Your task to perform on an android device: see sites visited before in the chrome app Image 0: 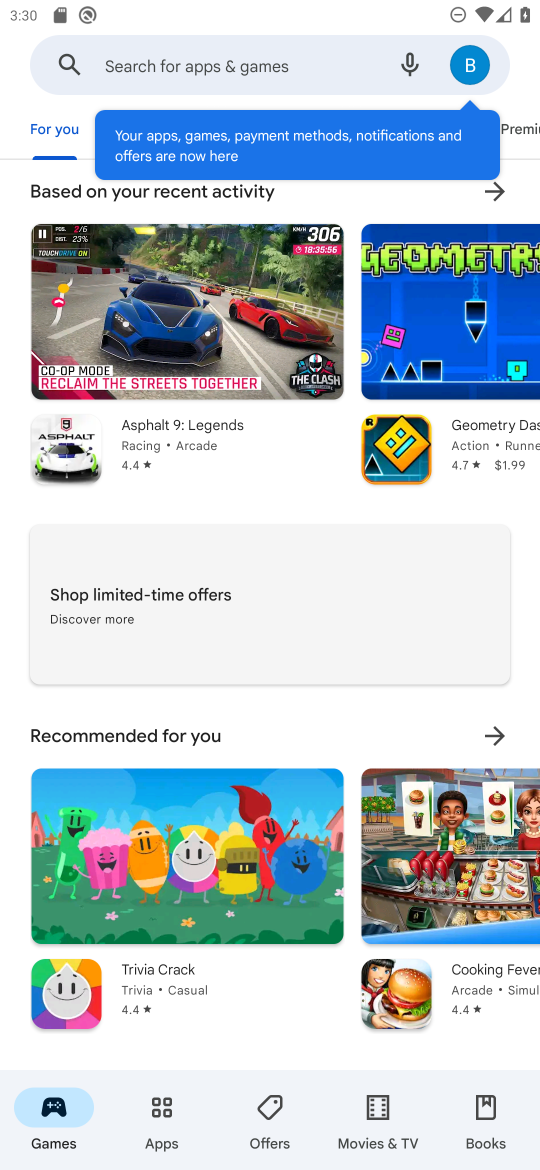
Step 0: press home button
Your task to perform on an android device: see sites visited before in the chrome app Image 1: 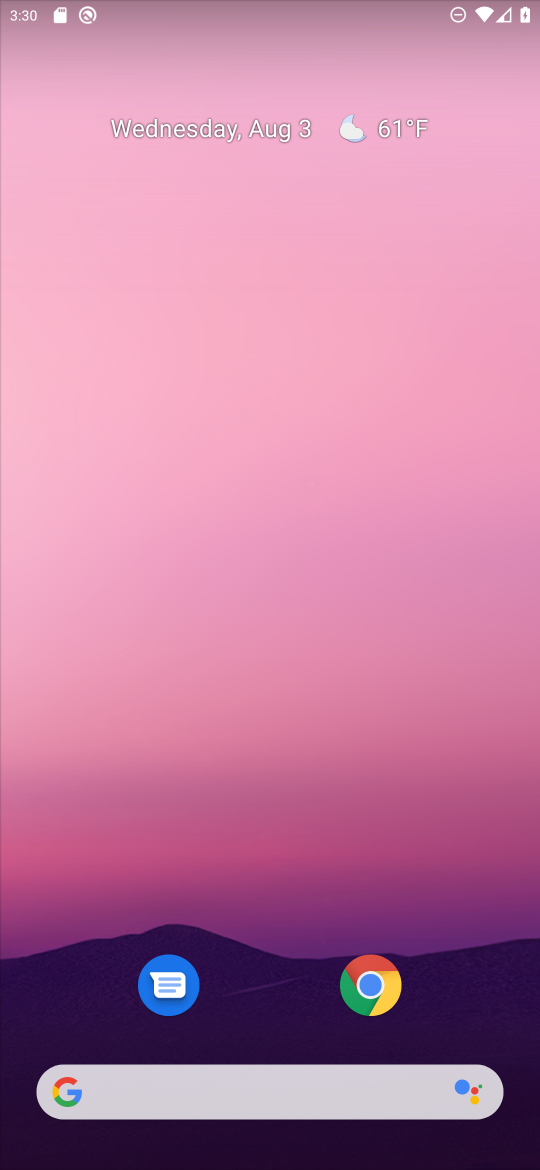
Step 1: click (383, 991)
Your task to perform on an android device: see sites visited before in the chrome app Image 2: 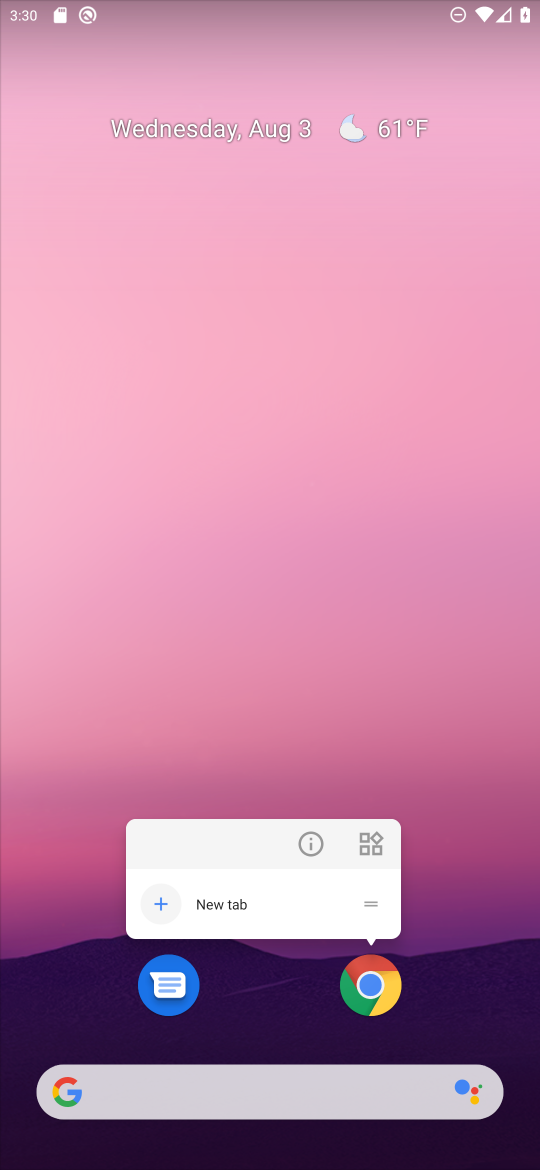
Step 2: click (374, 984)
Your task to perform on an android device: see sites visited before in the chrome app Image 3: 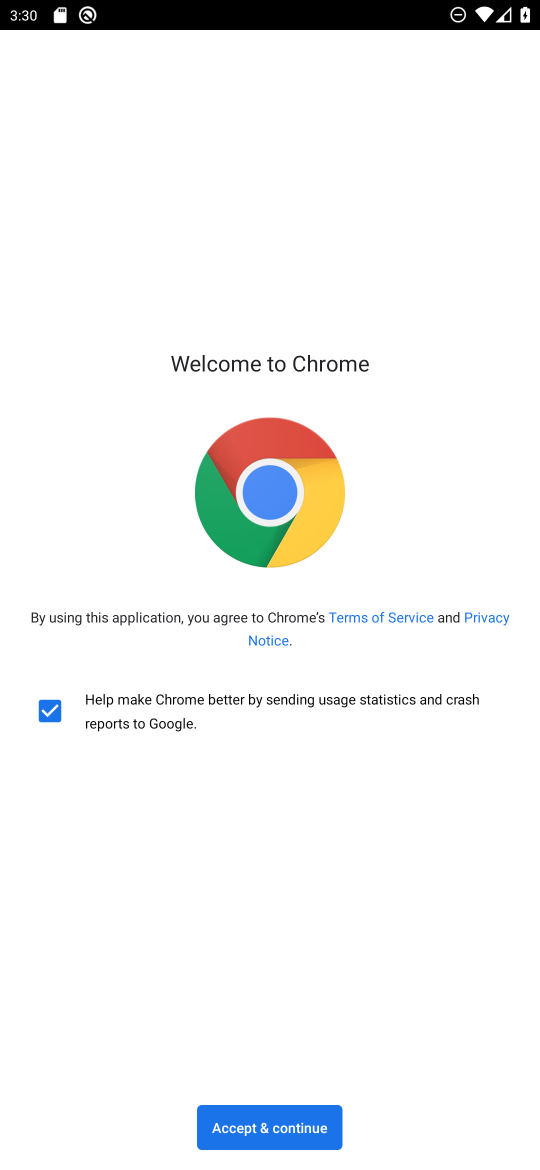
Step 3: click (256, 1115)
Your task to perform on an android device: see sites visited before in the chrome app Image 4: 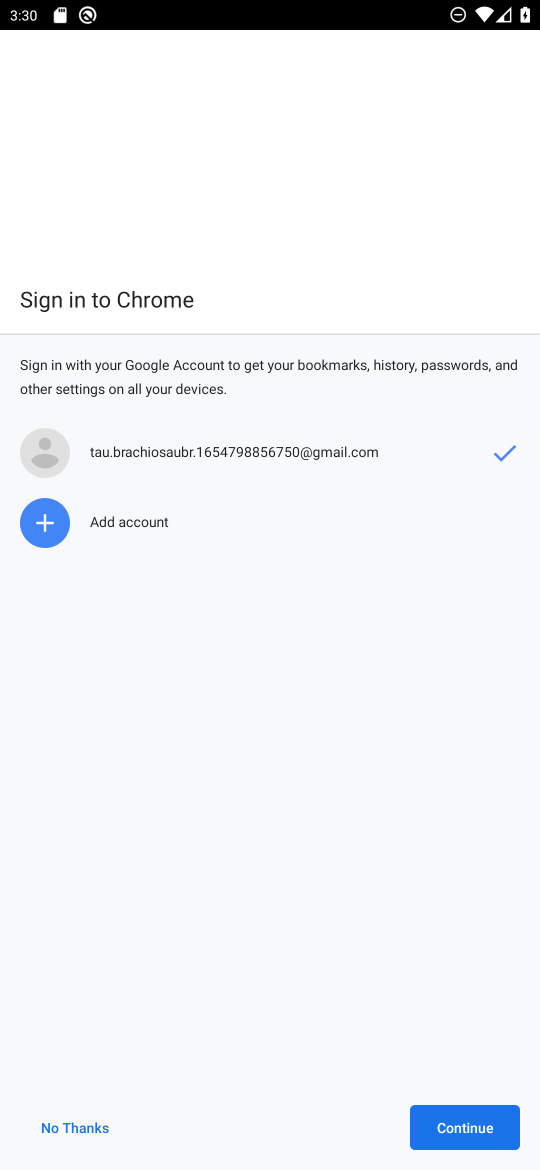
Step 4: click (451, 1134)
Your task to perform on an android device: see sites visited before in the chrome app Image 5: 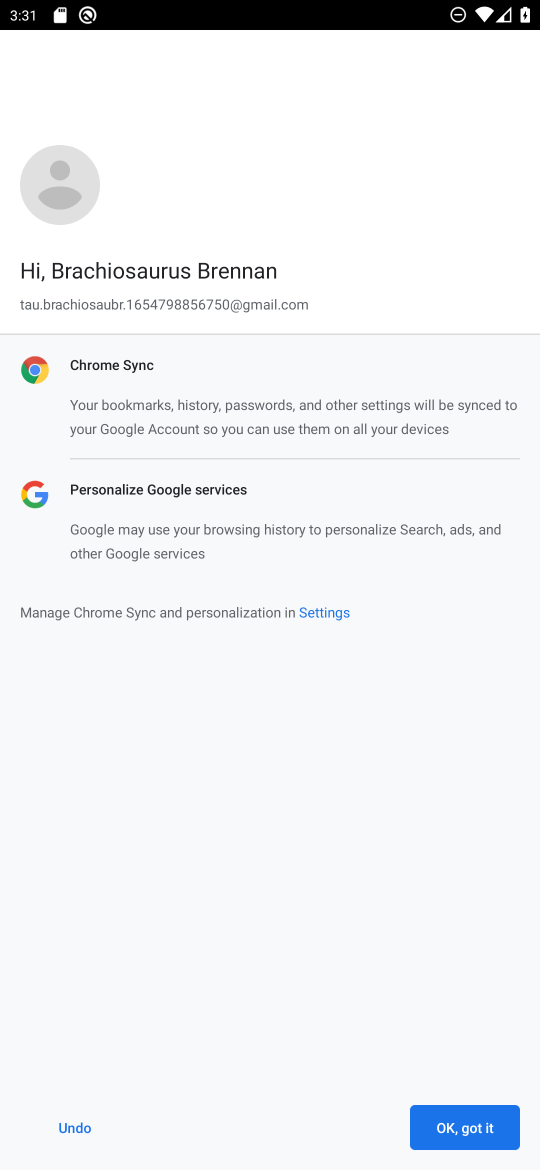
Step 5: click (466, 1134)
Your task to perform on an android device: see sites visited before in the chrome app Image 6: 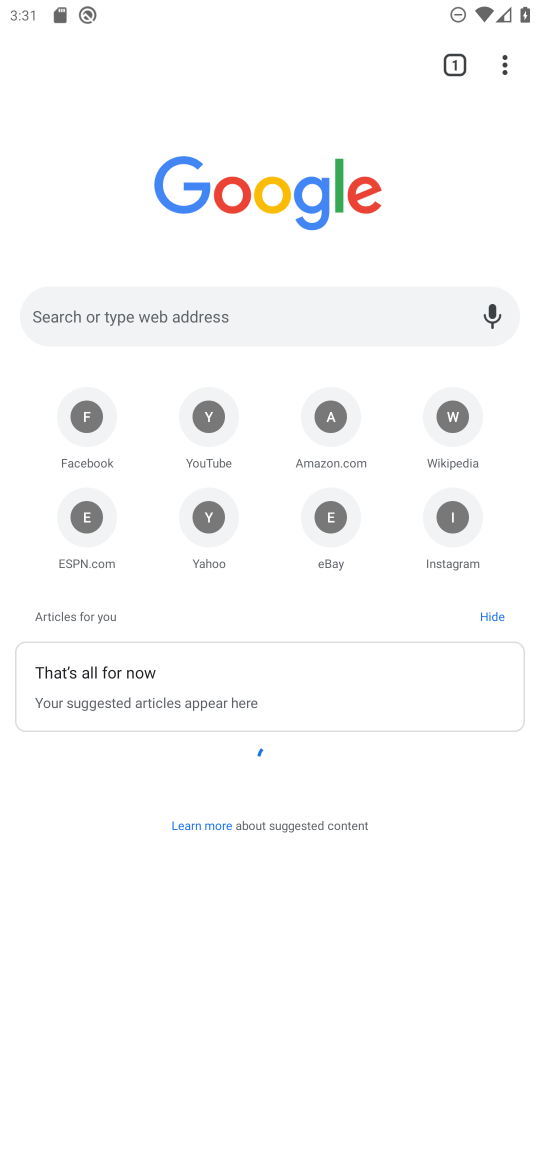
Step 6: click (506, 69)
Your task to perform on an android device: see sites visited before in the chrome app Image 7: 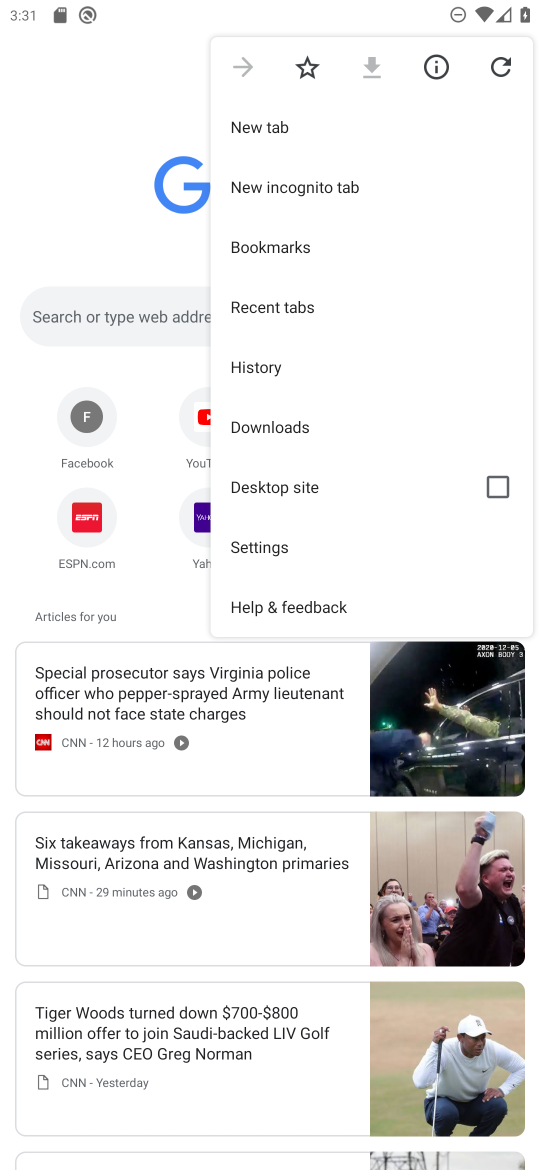
Step 7: click (274, 384)
Your task to perform on an android device: see sites visited before in the chrome app Image 8: 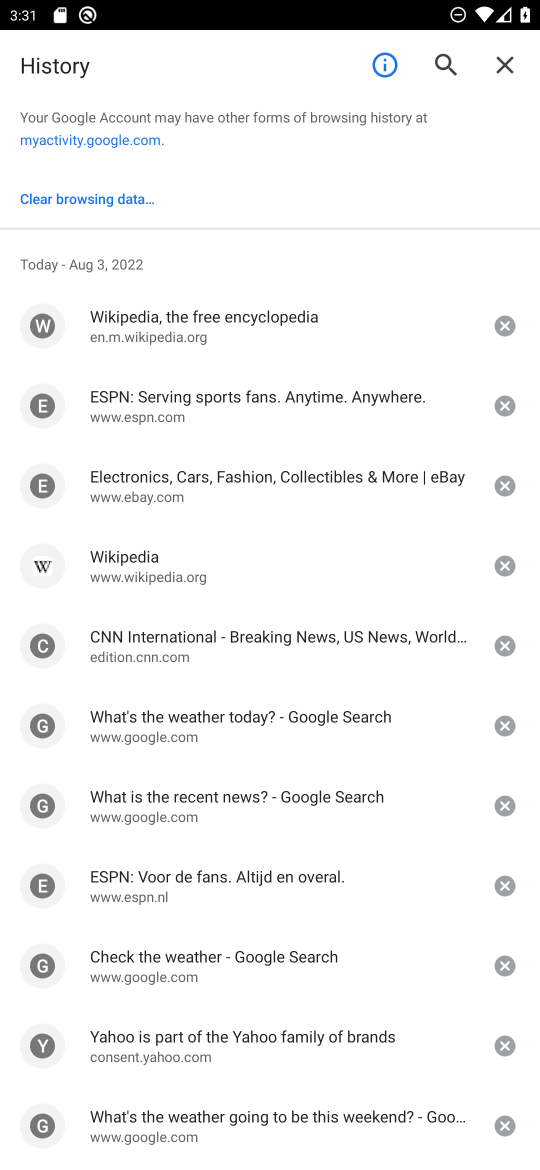
Step 8: task complete